Your task to perform on an android device: open chrome and create a bookmark for the current page Image 0: 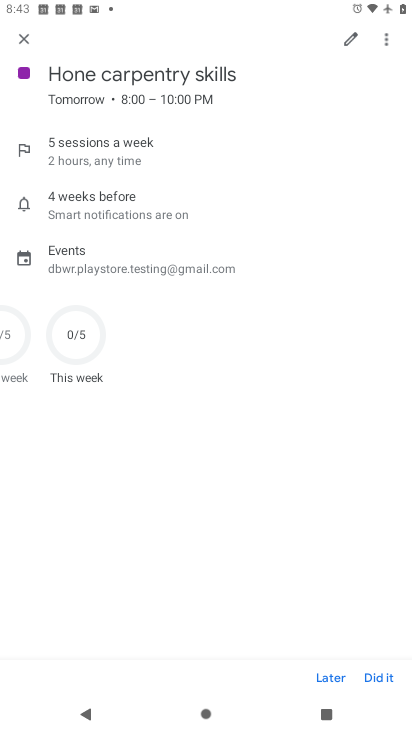
Step 0: press home button
Your task to perform on an android device: open chrome and create a bookmark for the current page Image 1: 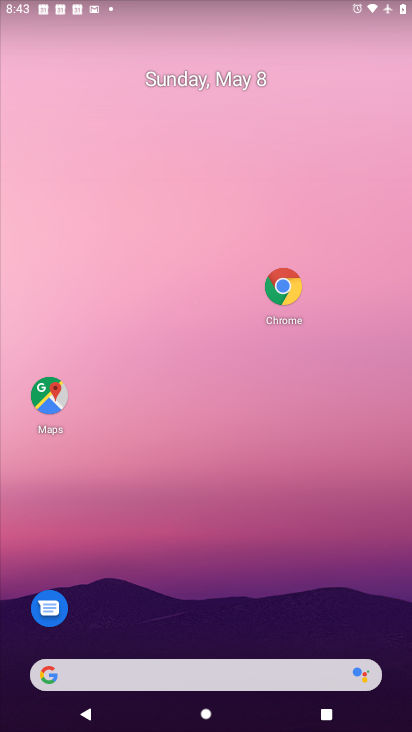
Step 1: drag from (132, 673) to (268, 117)
Your task to perform on an android device: open chrome and create a bookmark for the current page Image 2: 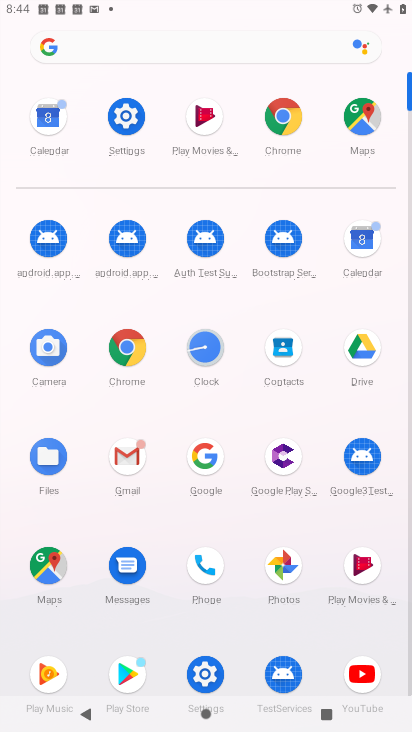
Step 2: click (286, 121)
Your task to perform on an android device: open chrome and create a bookmark for the current page Image 3: 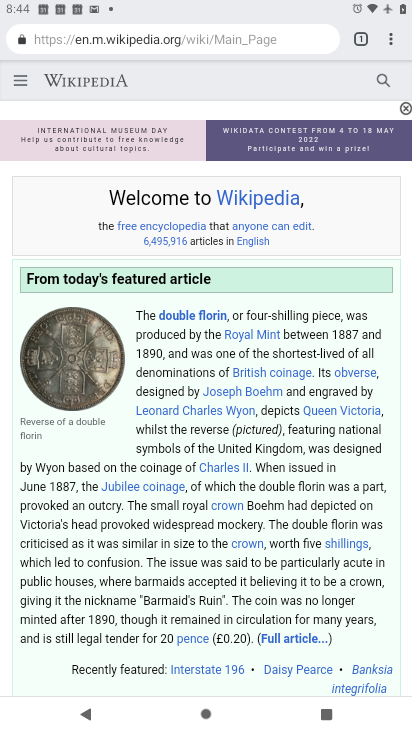
Step 3: click (384, 47)
Your task to perform on an android device: open chrome and create a bookmark for the current page Image 4: 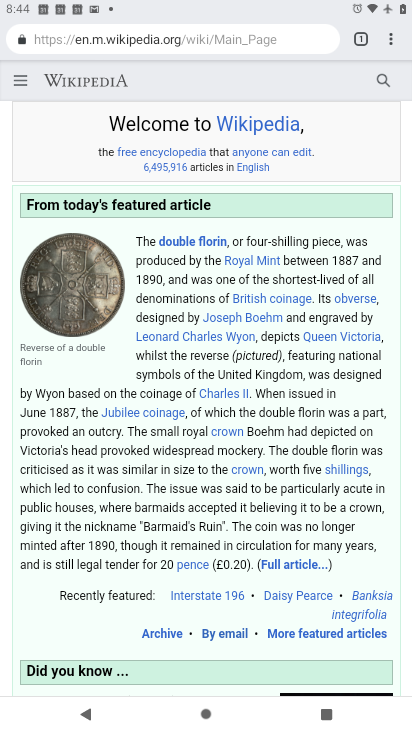
Step 4: click (382, 51)
Your task to perform on an android device: open chrome and create a bookmark for the current page Image 5: 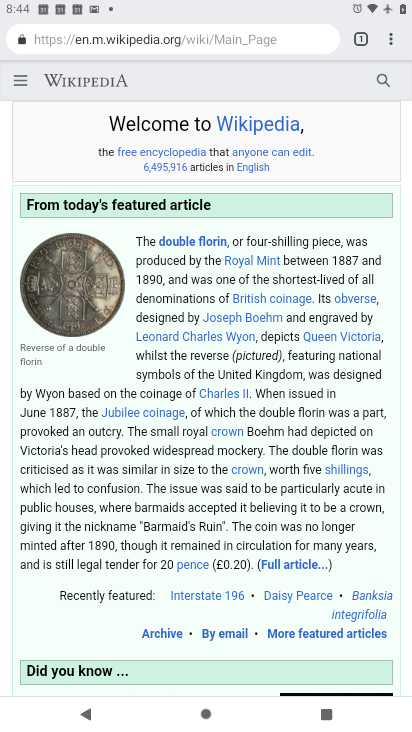
Step 5: click (393, 40)
Your task to perform on an android device: open chrome and create a bookmark for the current page Image 6: 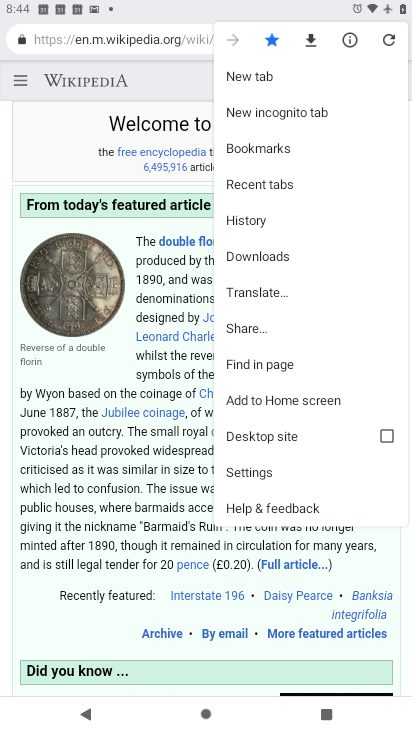
Step 6: task complete